Your task to perform on an android device: turn pop-ups on in chrome Image 0: 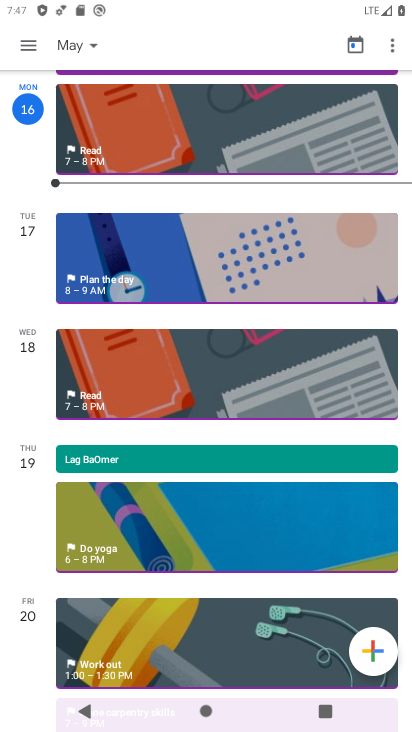
Step 0: press home button
Your task to perform on an android device: turn pop-ups on in chrome Image 1: 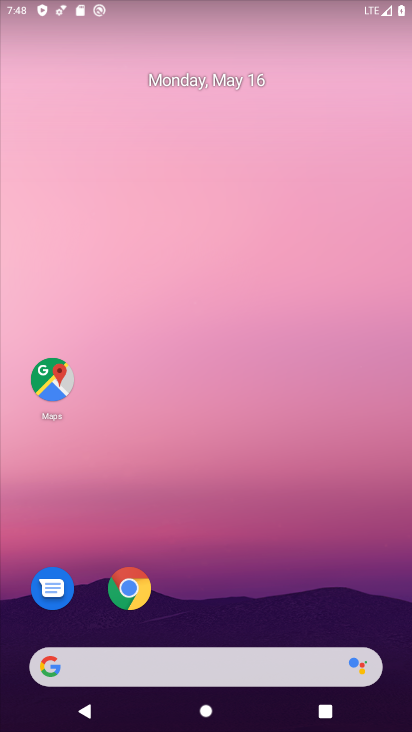
Step 1: click (135, 587)
Your task to perform on an android device: turn pop-ups on in chrome Image 2: 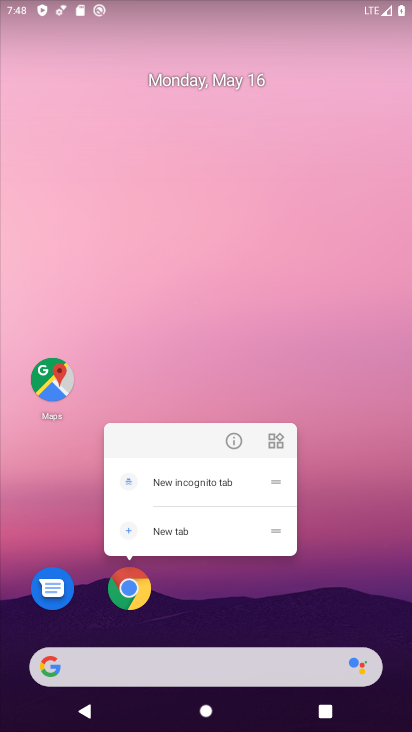
Step 2: click (134, 588)
Your task to perform on an android device: turn pop-ups on in chrome Image 3: 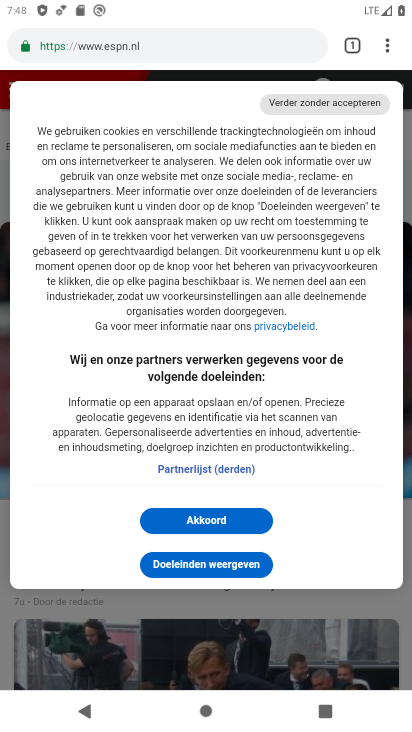
Step 3: click (391, 38)
Your task to perform on an android device: turn pop-ups on in chrome Image 4: 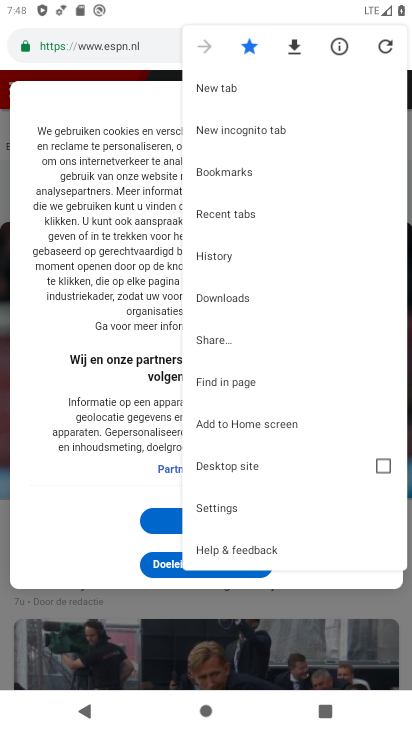
Step 4: click (229, 520)
Your task to perform on an android device: turn pop-ups on in chrome Image 5: 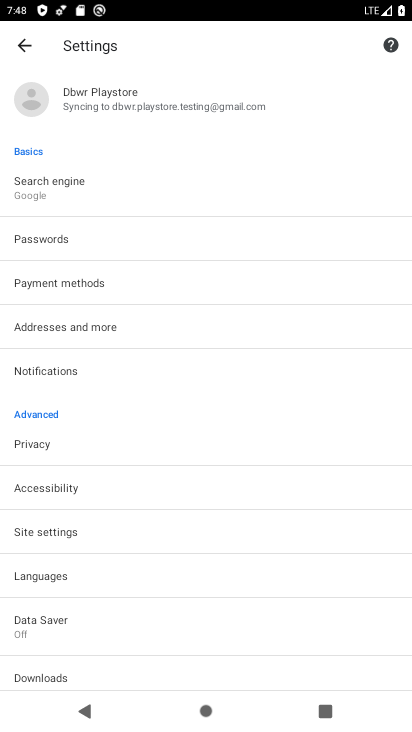
Step 5: click (35, 523)
Your task to perform on an android device: turn pop-ups on in chrome Image 6: 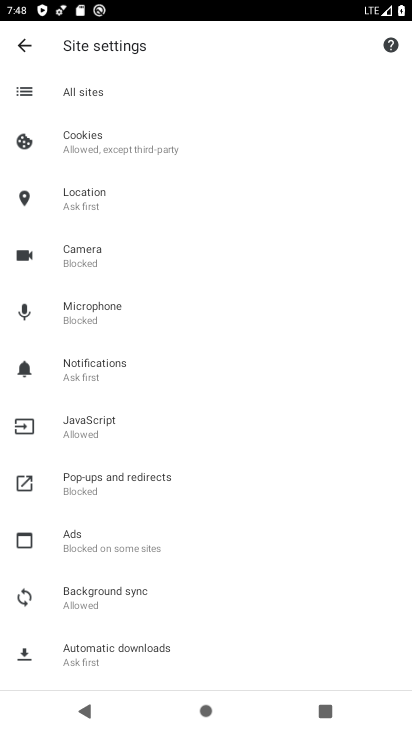
Step 6: click (94, 473)
Your task to perform on an android device: turn pop-ups on in chrome Image 7: 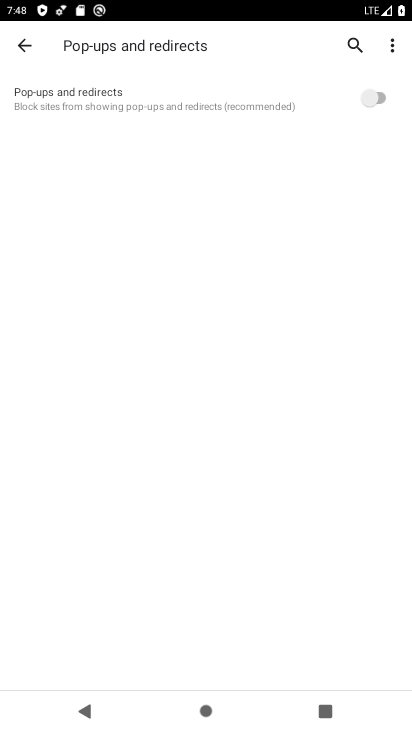
Step 7: click (377, 97)
Your task to perform on an android device: turn pop-ups on in chrome Image 8: 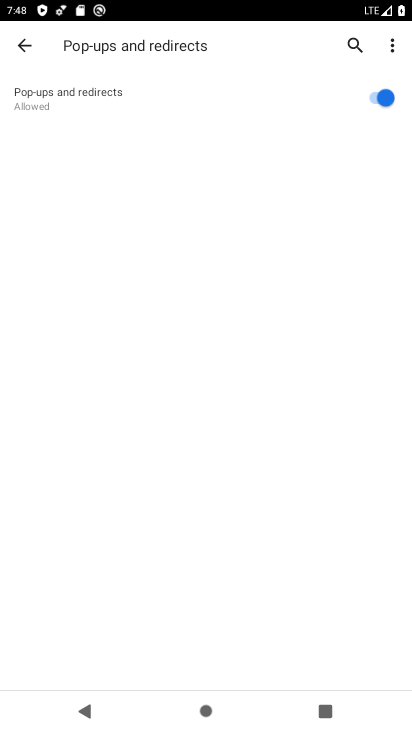
Step 8: task complete